Your task to perform on an android device: star an email in the gmail app Image 0: 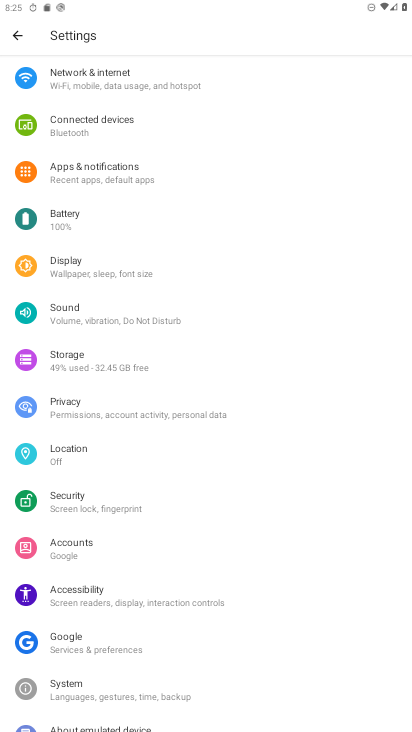
Step 0: press home button
Your task to perform on an android device: star an email in the gmail app Image 1: 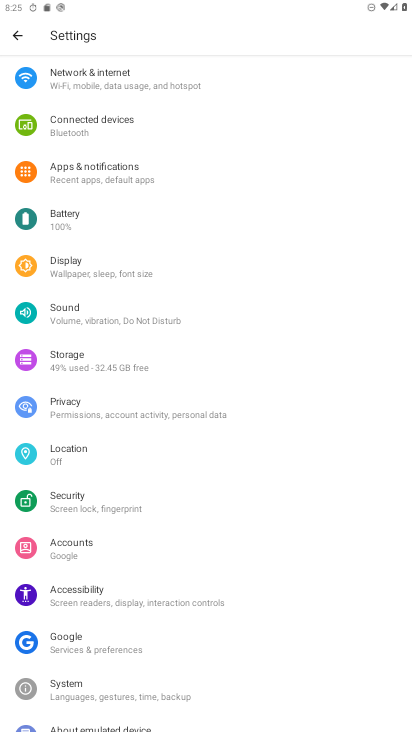
Step 1: press home button
Your task to perform on an android device: star an email in the gmail app Image 2: 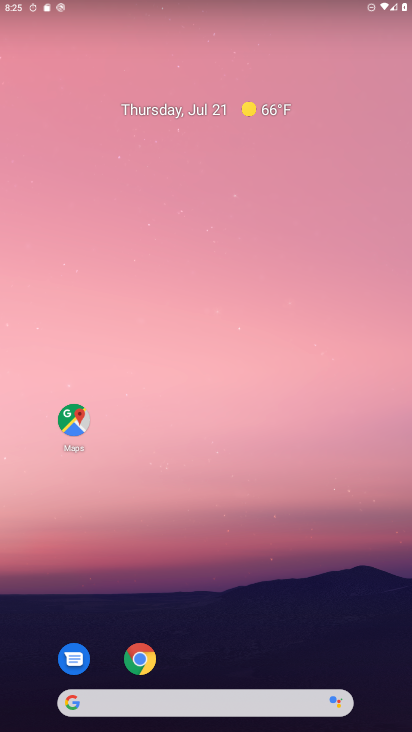
Step 2: drag from (221, 681) to (247, 126)
Your task to perform on an android device: star an email in the gmail app Image 3: 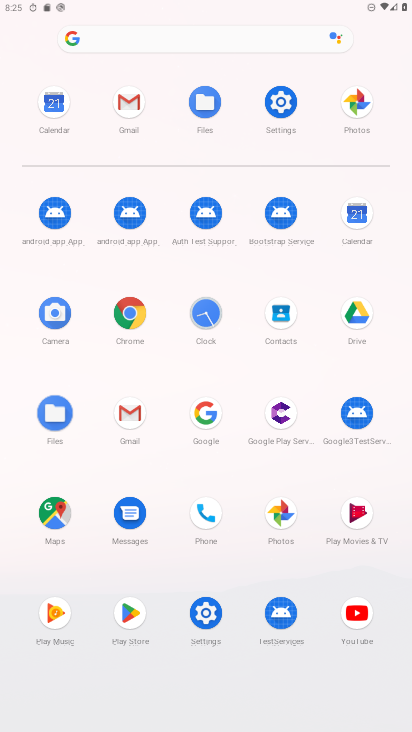
Step 3: click (138, 408)
Your task to perform on an android device: star an email in the gmail app Image 4: 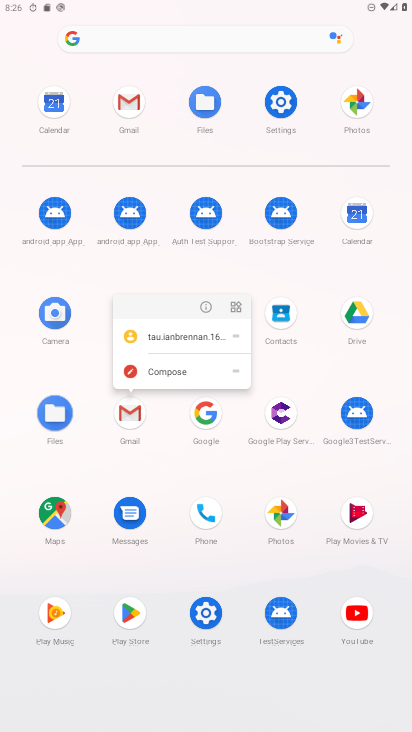
Step 4: click (204, 308)
Your task to perform on an android device: star an email in the gmail app Image 5: 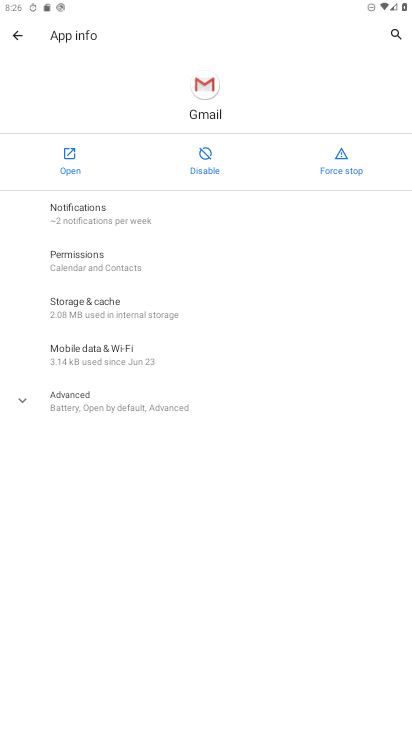
Step 5: click (71, 172)
Your task to perform on an android device: star an email in the gmail app Image 6: 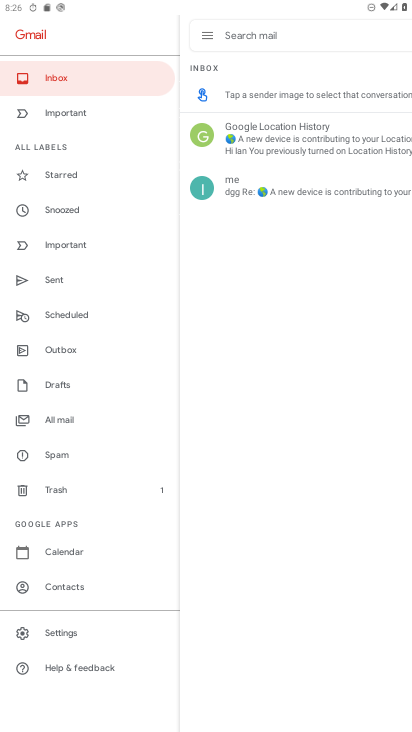
Step 6: click (275, 139)
Your task to perform on an android device: star an email in the gmail app Image 7: 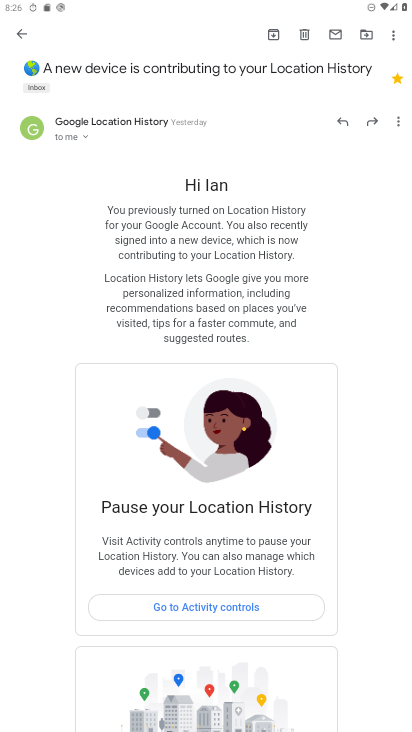
Step 7: task complete